Your task to perform on an android device: open app "DoorDash - Food Delivery" (install if not already installed) Image 0: 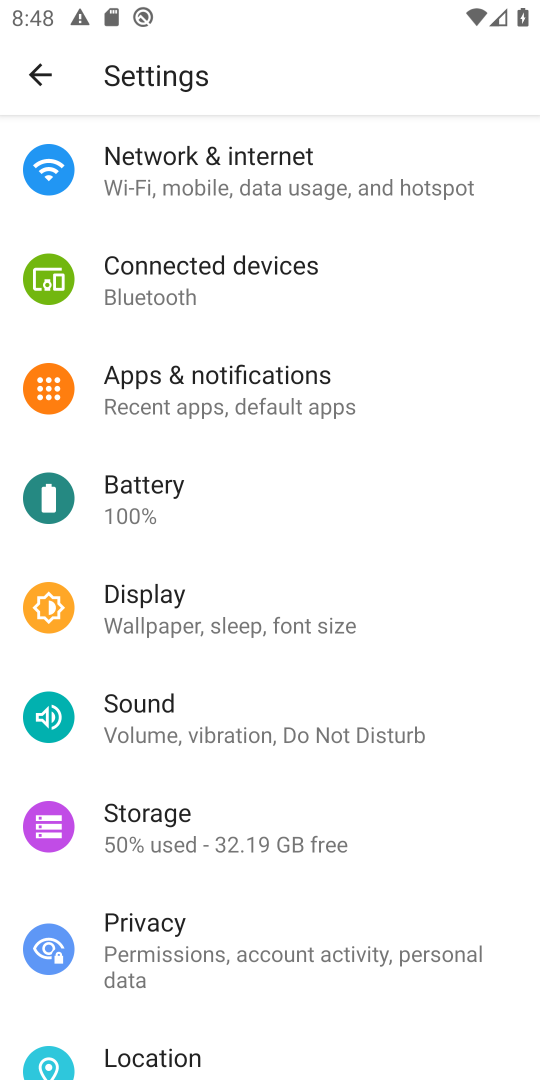
Step 0: press home button
Your task to perform on an android device: open app "DoorDash - Food Delivery" (install if not already installed) Image 1: 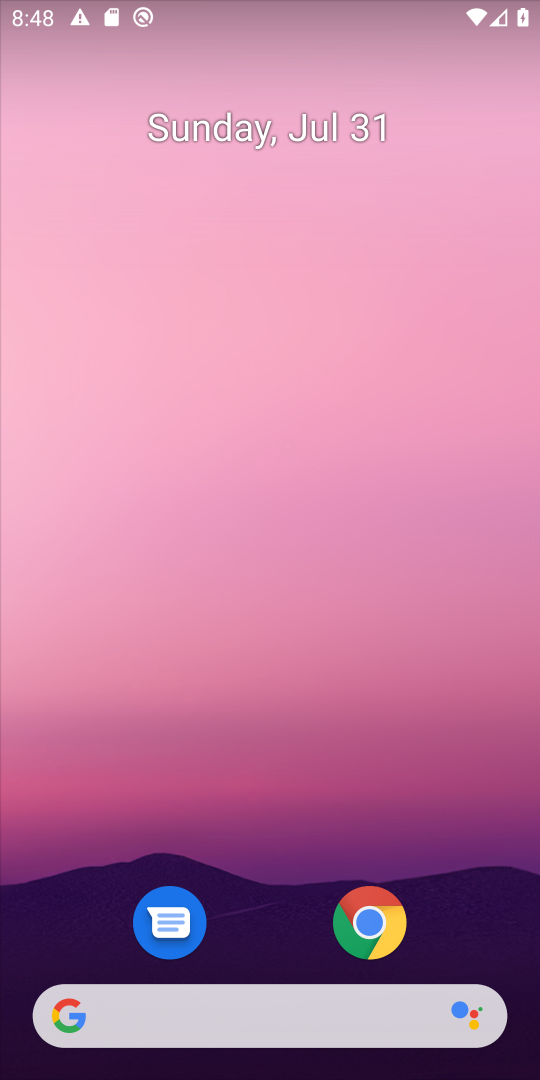
Step 1: drag from (250, 1035) to (255, 526)
Your task to perform on an android device: open app "DoorDash - Food Delivery" (install if not already installed) Image 2: 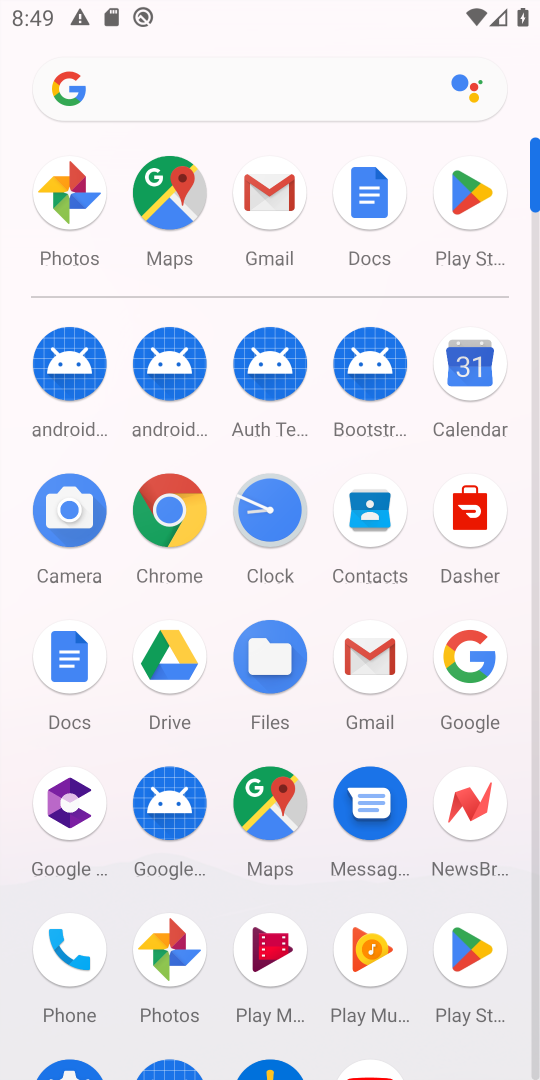
Step 2: click (468, 936)
Your task to perform on an android device: open app "DoorDash - Food Delivery" (install if not already installed) Image 3: 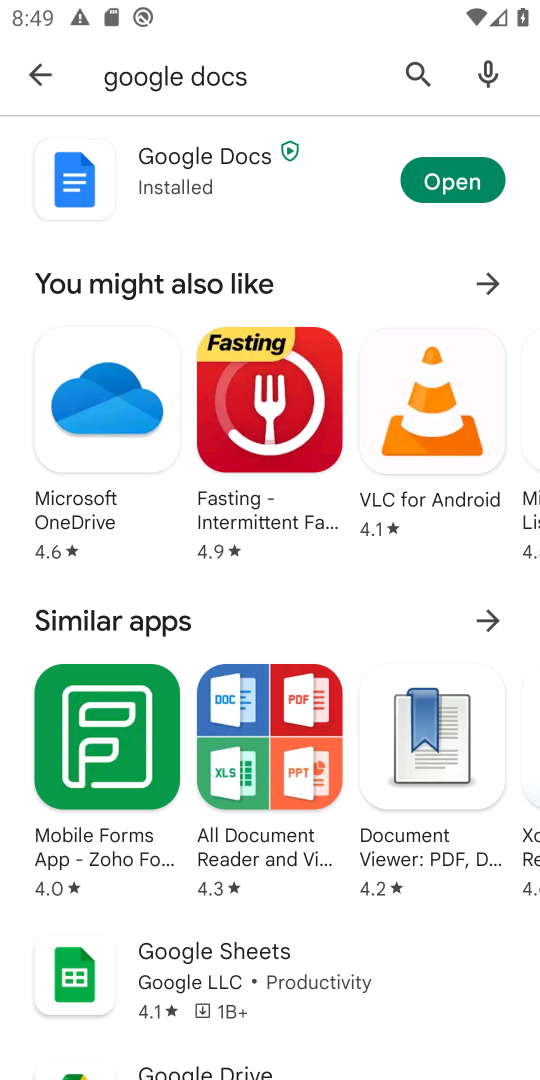
Step 3: click (403, 76)
Your task to perform on an android device: open app "DoorDash - Food Delivery" (install if not already installed) Image 4: 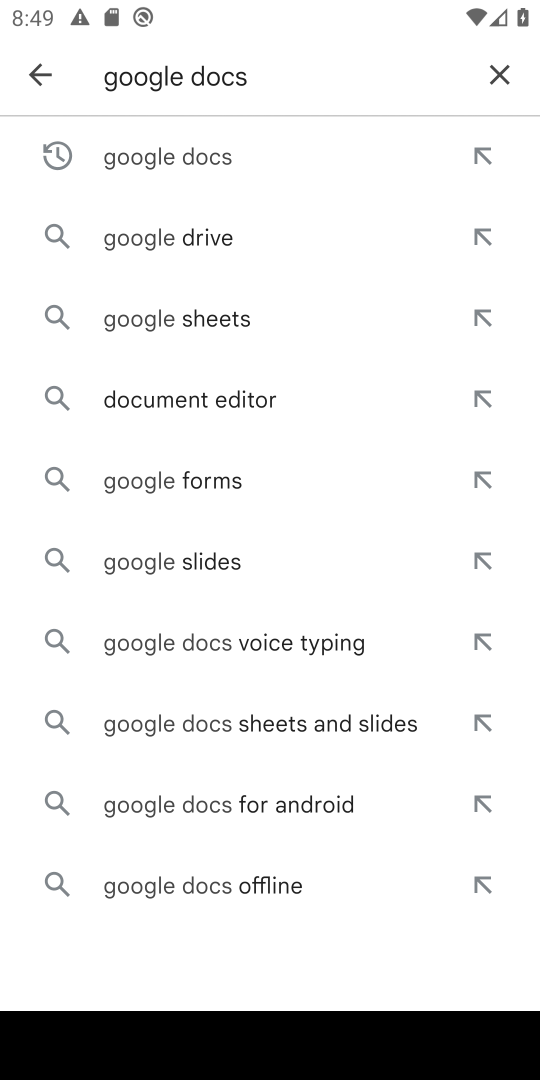
Step 4: click (498, 76)
Your task to perform on an android device: open app "DoorDash - Food Delivery" (install if not already installed) Image 5: 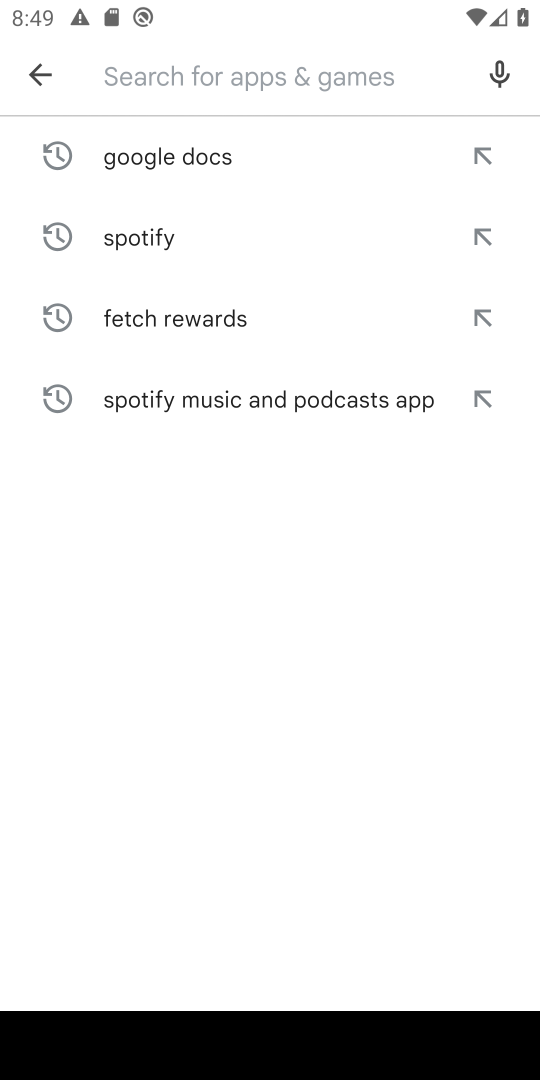
Step 5: type "Food Delivery"
Your task to perform on an android device: open app "DoorDash - Food Delivery" (install if not already installed) Image 6: 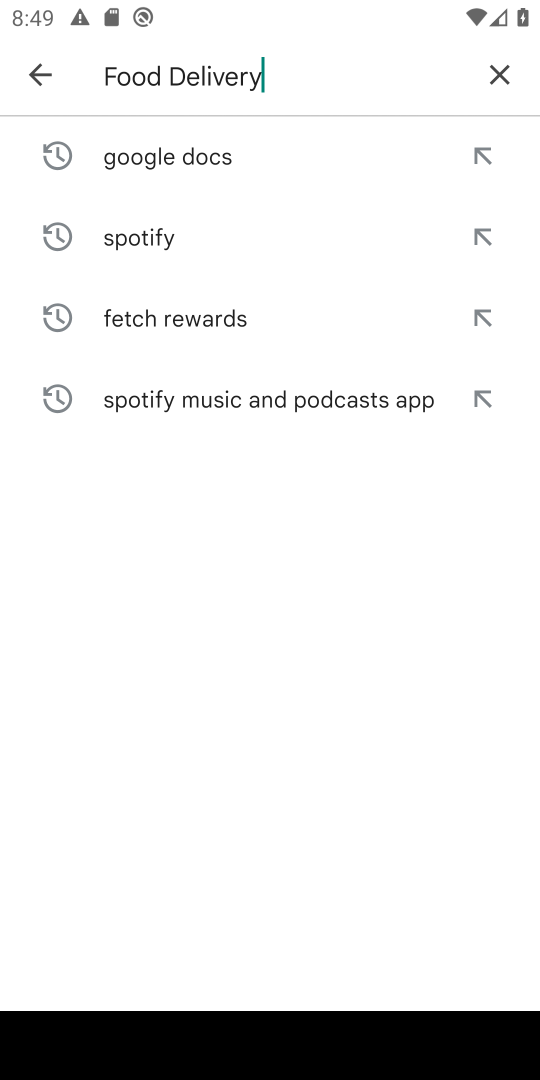
Step 6: type ""
Your task to perform on an android device: open app "DoorDash - Food Delivery" (install if not already installed) Image 7: 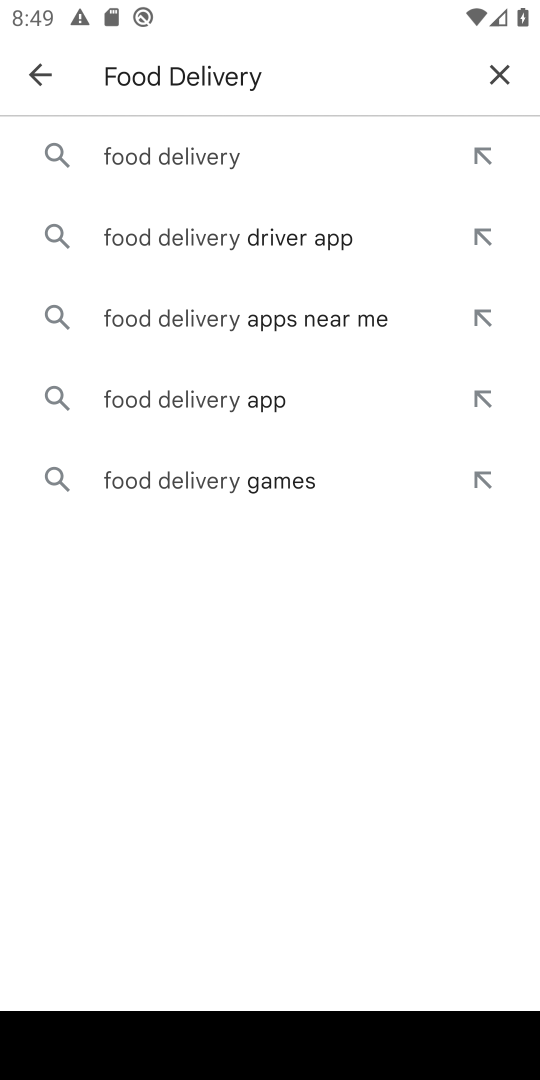
Step 7: click (504, 71)
Your task to perform on an android device: open app "DoorDash - Food Delivery" (install if not already installed) Image 8: 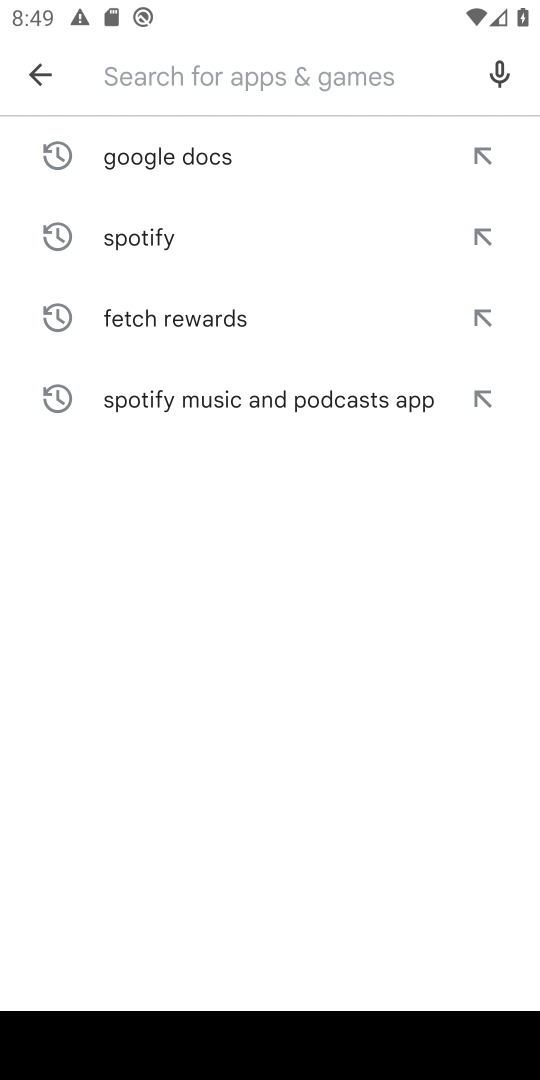
Step 8: type "DoorDash - Food Delivery"
Your task to perform on an android device: open app "DoorDash - Food Delivery" (install if not already installed) Image 9: 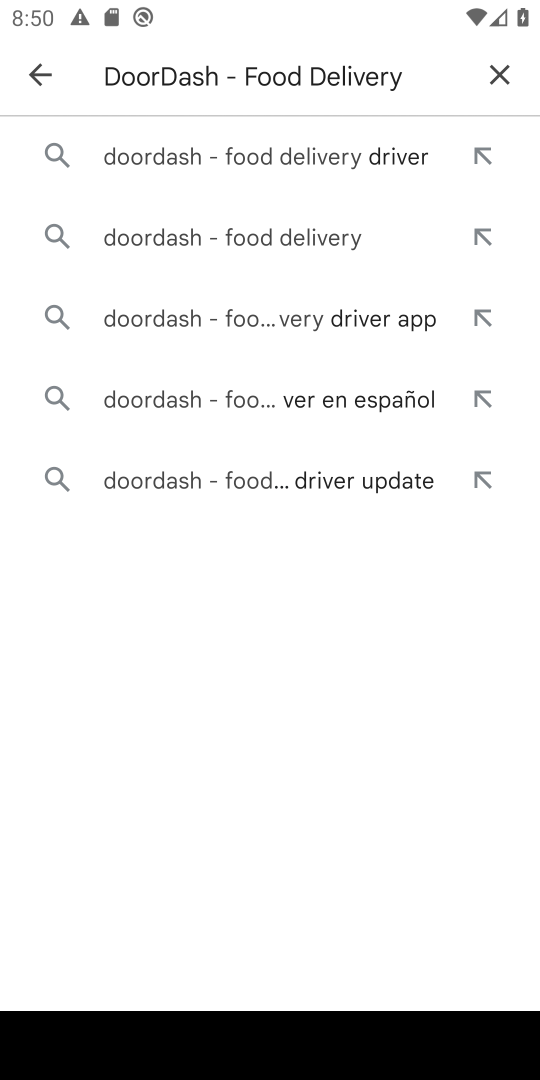
Step 9: click (265, 237)
Your task to perform on an android device: open app "DoorDash - Food Delivery" (install if not already installed) Image 10: 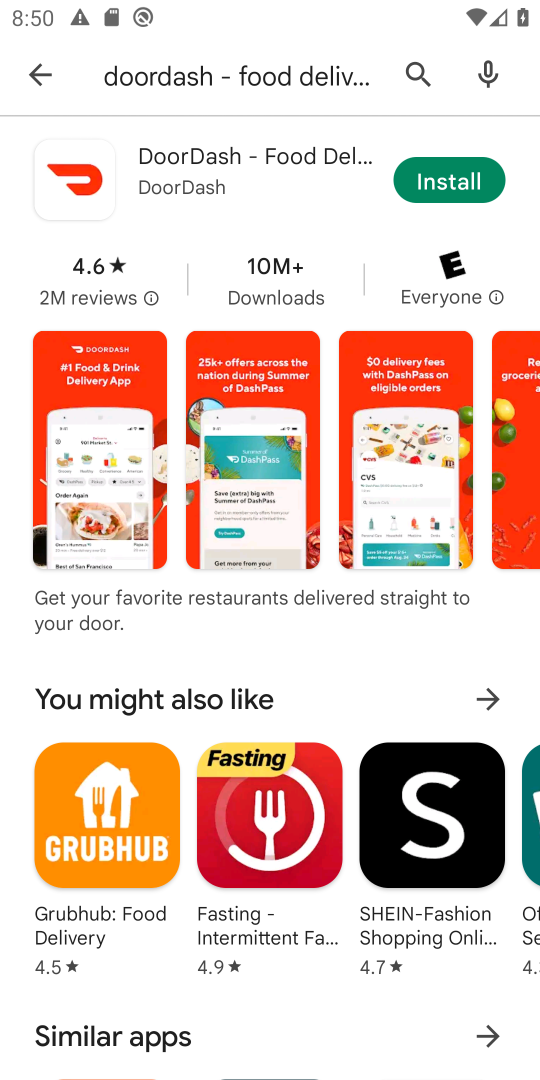
Step 10: click (458, 191)
Your task to perform on an android device: open app "DoorDash - Food Delivery" (install if not already installed) Image 11: 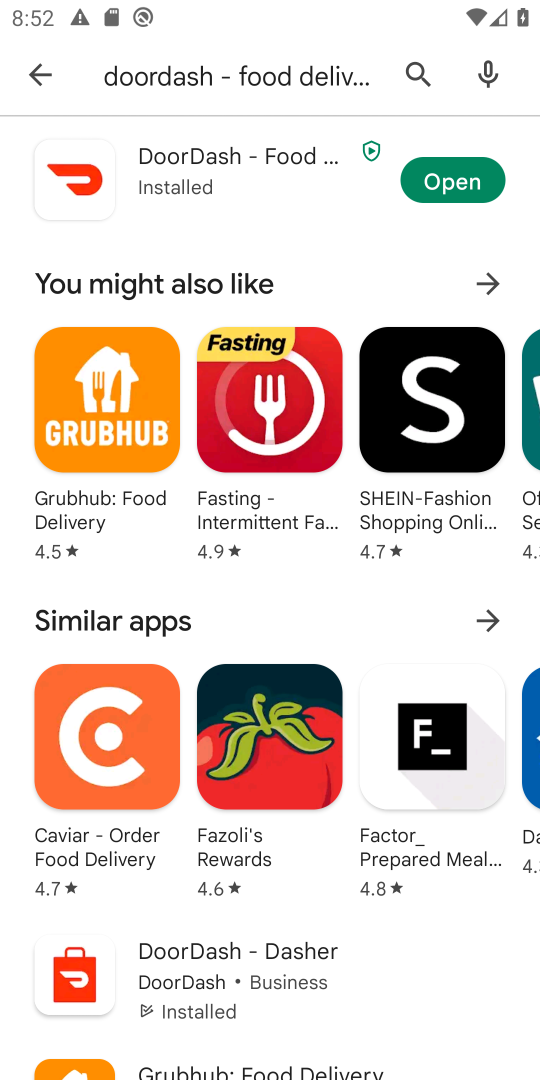
Step 11: task complete